Your task to perform on an android device: Open the Play Movies app and select the watchlist tab. Image 0: 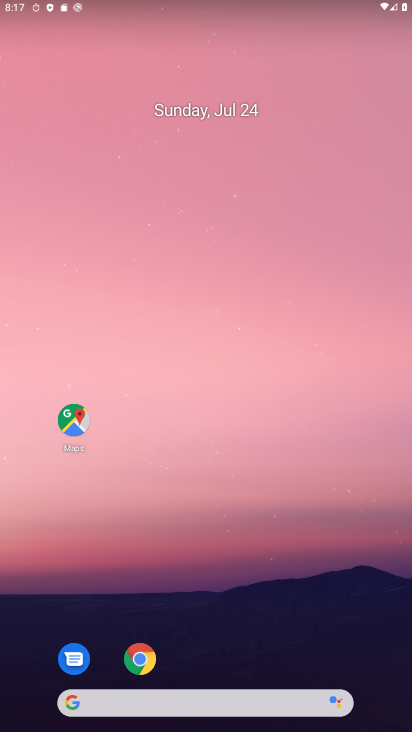
Step 0: drag from (291, 671) to (281, 157)
Your task to perform on an android device: Open the Play Movies app and select the watchlist tab. Image 1: 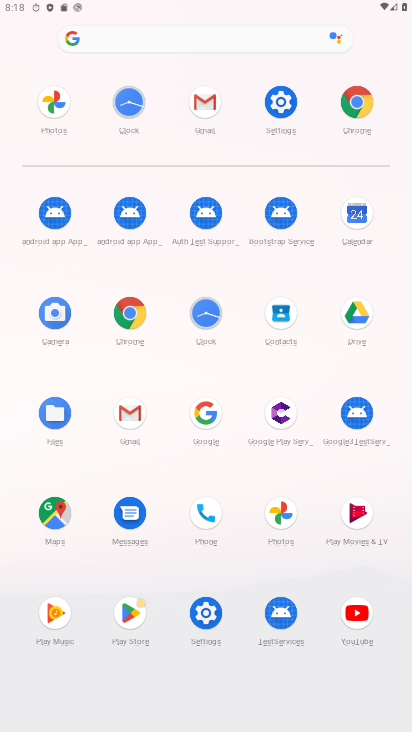
Step 1: click (350, 511)
Your task to perform on an android device: Open the Play Movies app and select the watchlist tab. Image 2: 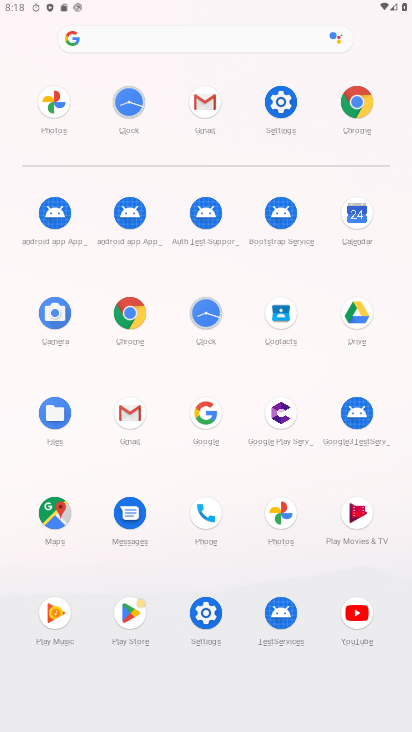
Step 2: click (350, 511)
Your task to perform on an android device: Open the Play Movies app and select the watchlist tab. Image 3: 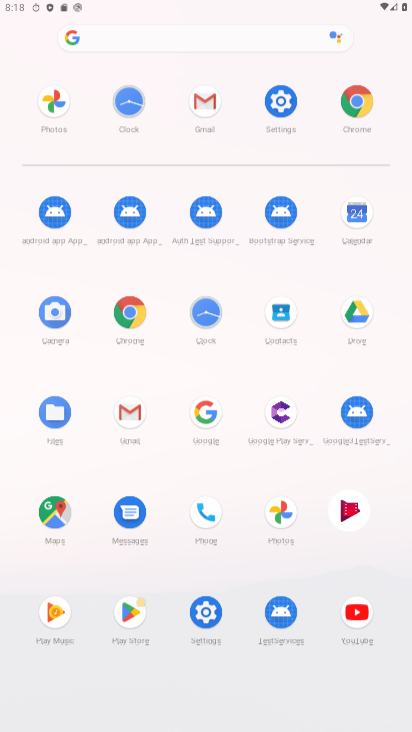
Step 3: click (350, 512)
Your task to perform on an android device: Open the Play Movies app and select the watchlist tab. Image 4: 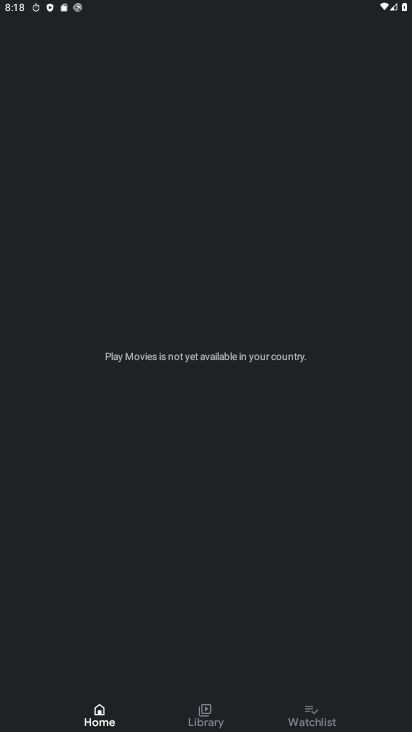
Step 4: click (310, 724)
Your task to perform on an android device: Open the Play Movies app and select the watchlist tab. Image 5: 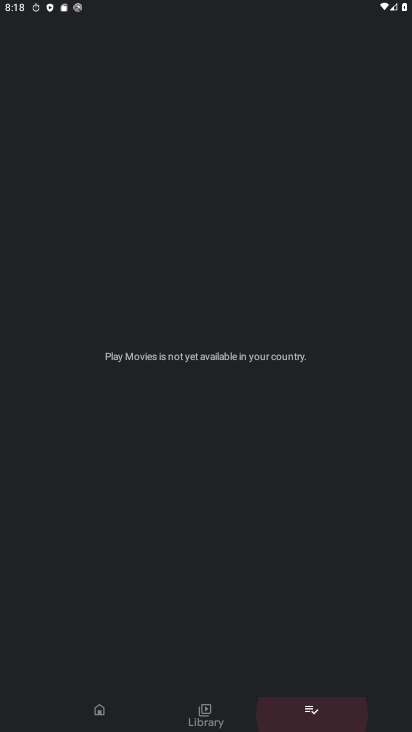
Step 5: click (308, 726)
Your task to perform on an android device: Open the Play Movies app and select the watchlist tab. Image 6: 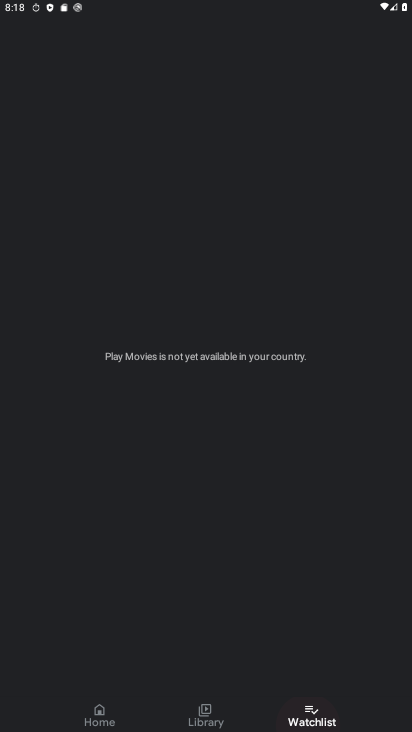
Step 6: click (308, 726)
Your task to perform on an android device: Open the Play Movies app and select the watchlist tab. Image 7: 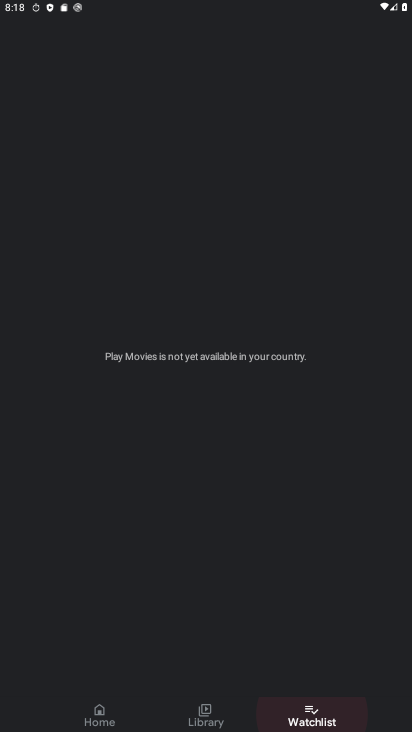
Step 7: click (307, 724)
Your task to perform on an android device: Open the Play Movies app and select the watchlist tab. Image 8: 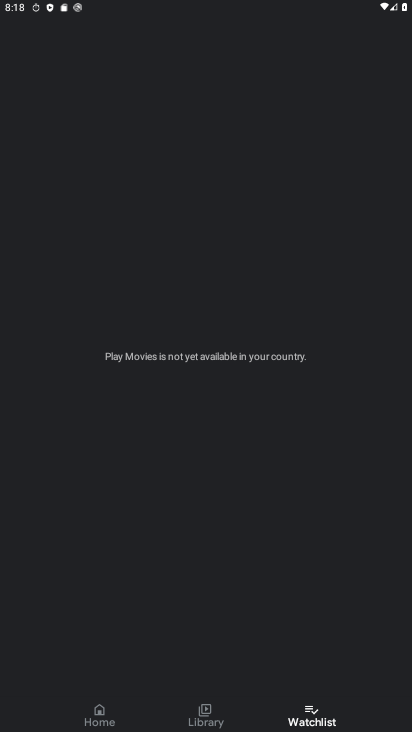
Step 8: click (306, 721)
Your task to perform on an android device: Open the Play Movies app and select the watchlist tab. Image 9: 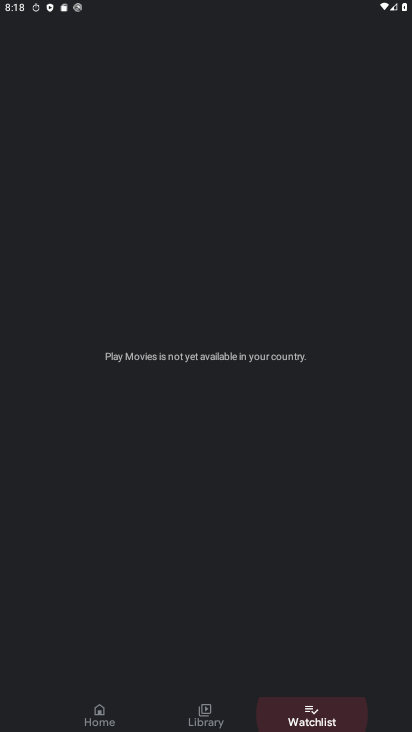
Step 9: click (299, 725)
Your task to perform on an android device: Open the Play Movies app and select the watchlist tab. Image 10: 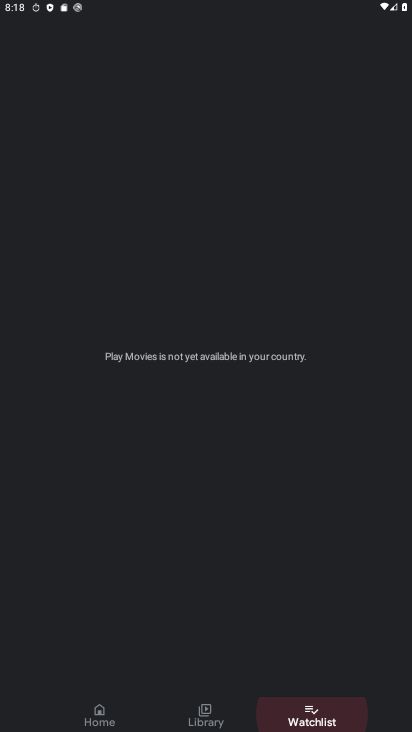
Step 10: click (299, 725)
Your task to perform on an android device: Open the Play Movies app and select the watchlist tab. Image 11: 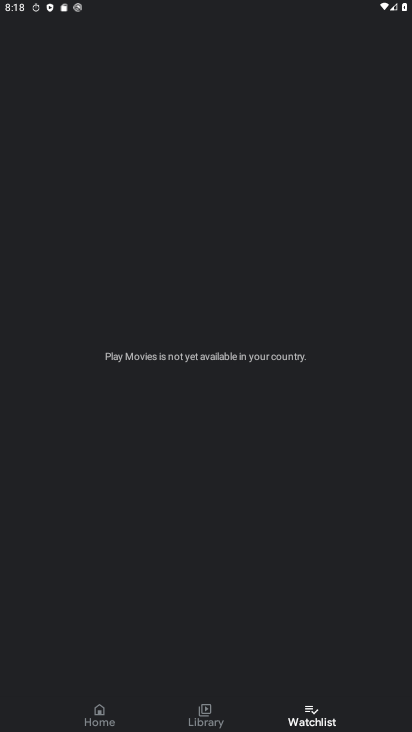
Step 11: click (299, 725)
Your task to perform on an android device: Open the Play Movies app and select the watchlist tab. Image 12: 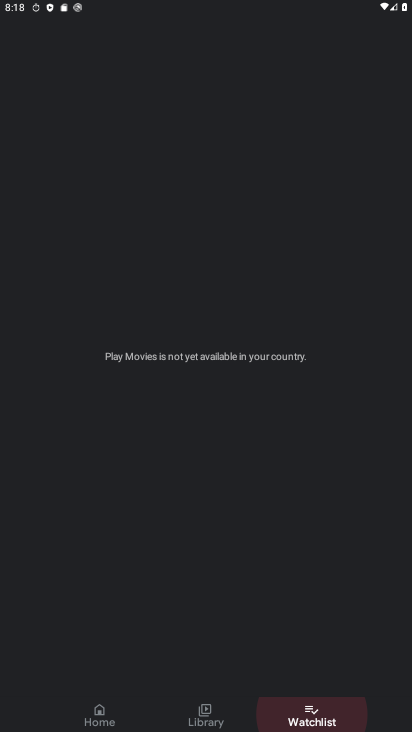
Step 12: click (299, 725)
Your task to perform on an android device: Open the Play Movies app and select the watchlist tab. Image 13: 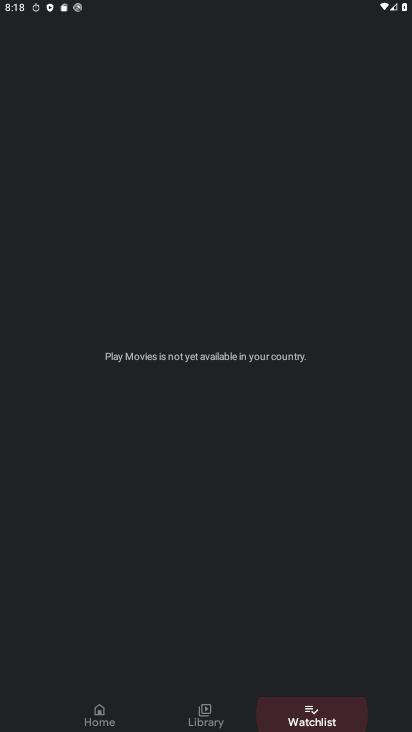
Step 13: click (299, 725)
Your task to perform on an android device: Open the Play Movies app and select the watchlist tab. Image 14: 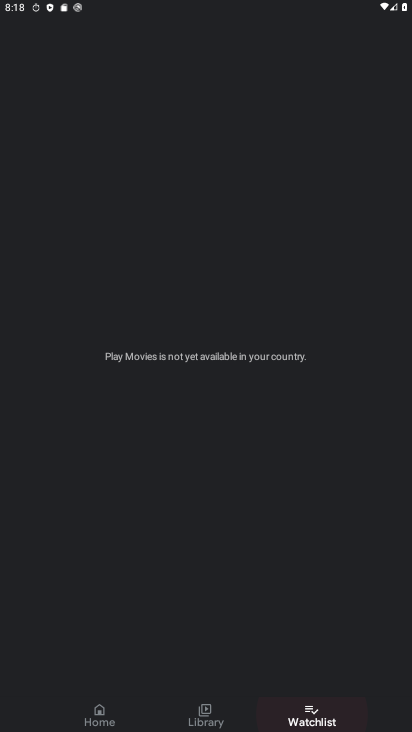
Step 14: click (299, 724)
Your task to perform on an android device: Open the Play Movies app and select the watchlist tab. Image 15: 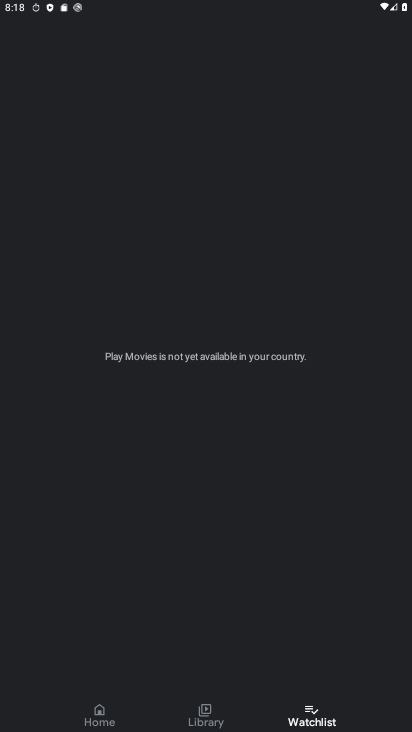
Step 15: task complete